Your task to perform on an android device: open chrome privacy settings Image 0: 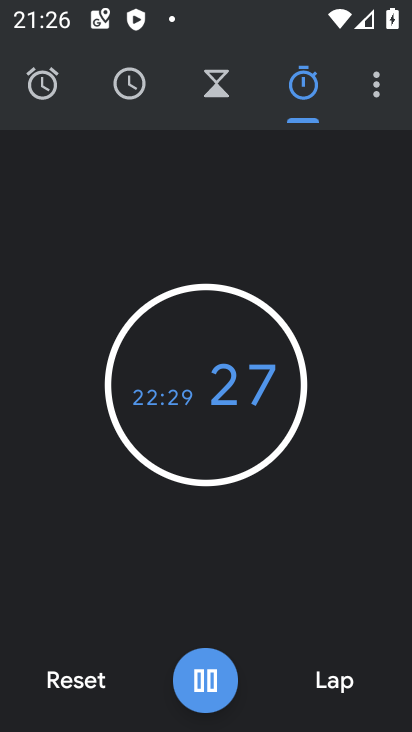
Step 0: press home button
Your task to perform on an android device: open chrome privacy settings Image 1: 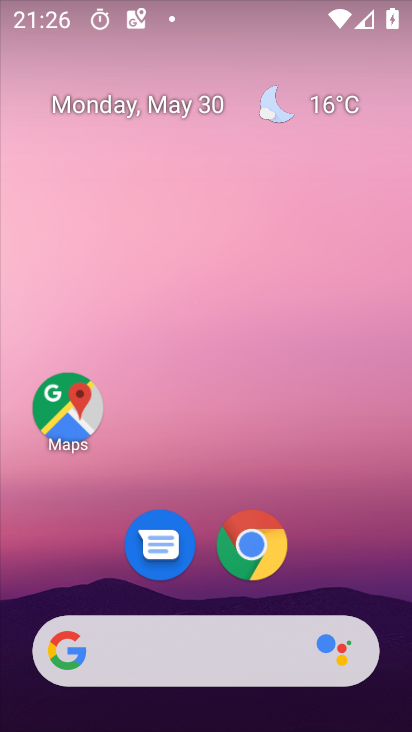
Step 1: click (271, 548)
Your task to perform on an android device: open chrome privacy settings Image 2: 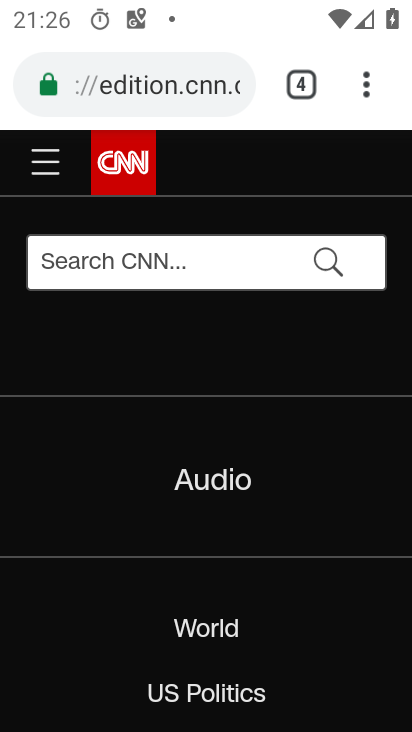
Step 2: click (371, 80)
Your task to perform on an android device: open chrome privacy settings Image 3: 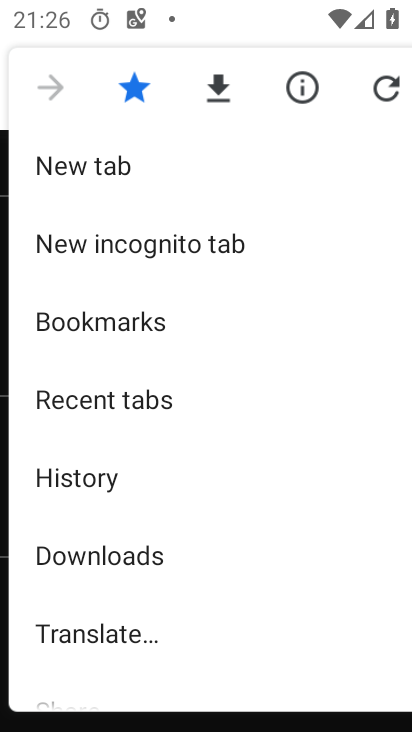
Step 3: drag from (174, 579) to (188, 280)
Your task to perform on an android device: open chrome privacy settings Image 4: 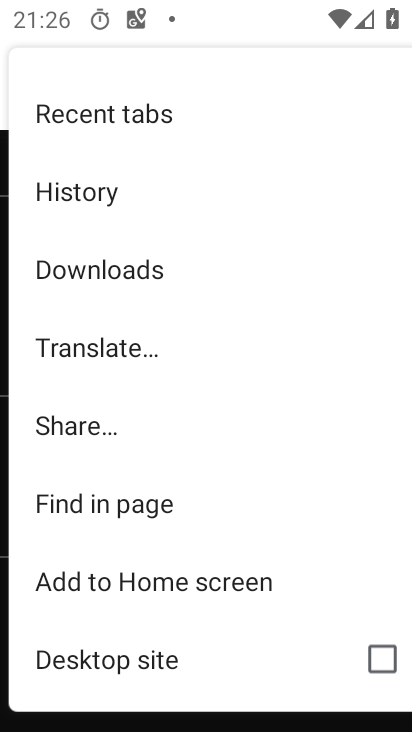
Step 4: drag from (246, 608) to (218, 161)
Your task to perform on an android device: open chrome privacy settings Image 5: 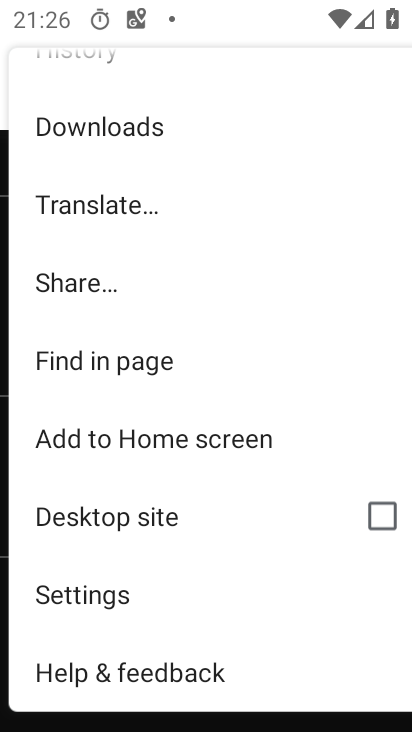
Step 5: click (106, 593)
Your task to perform on an android device: open chrome privacy settings Image 6: 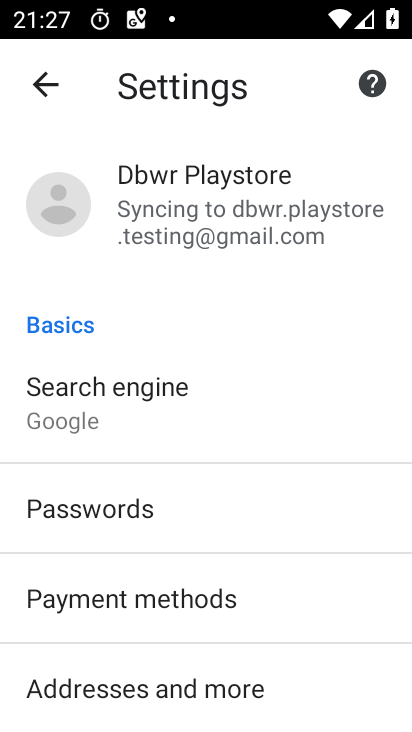
Step 6: drag from (307, 633) to (294, 203)
Your task to perform on an android device: open chrome privacy settings Image 7: 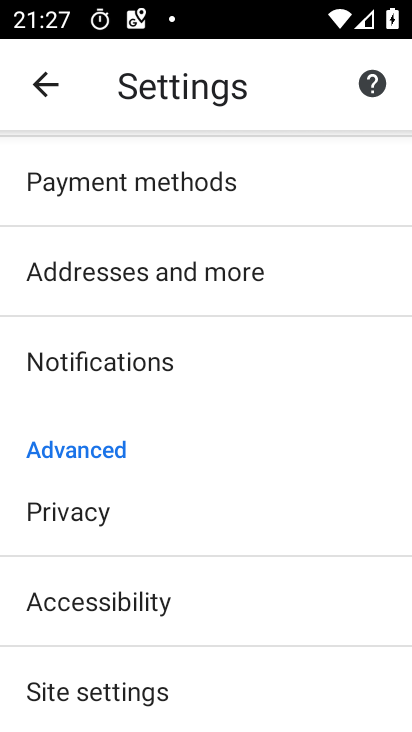
Step 7: click (116, 523)
Your task to perform on an android device: open chrome privacy settings Image 8: 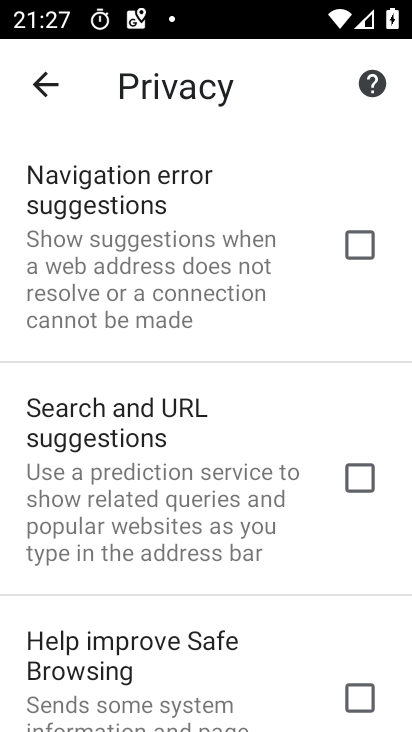
Step 8: task complete